Your task to perform on an android device: delete the emails in spam in the gmail app Image 0: 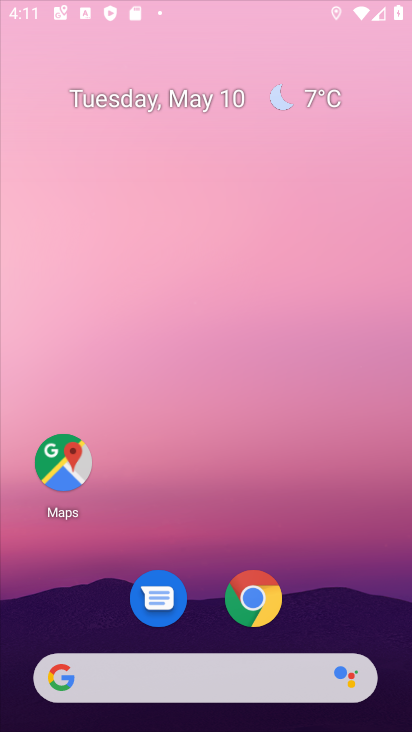
Step 0: click (292, 117)
Your task to perform on an android device: delete the emails in spam in the gmail app Image 1: 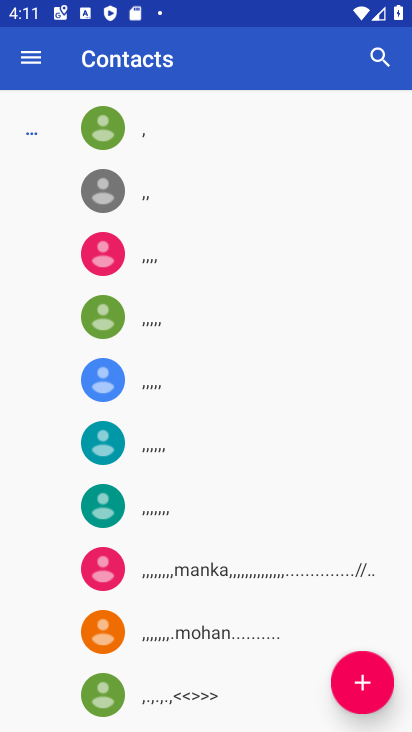
Step 1: press home button
Your task to perform on an android device: delete the emails in spam in the gmail app Image 2: 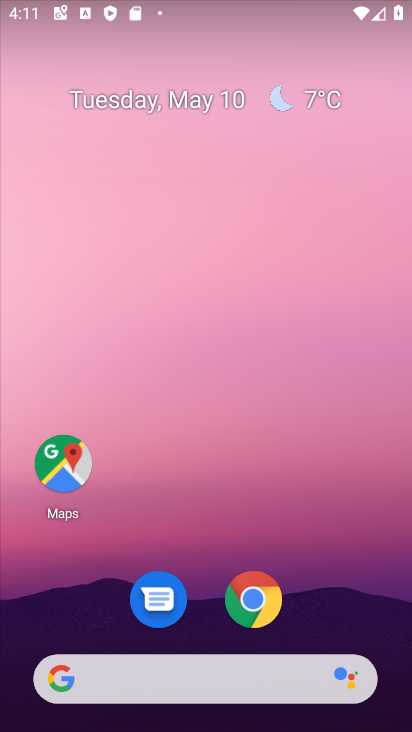
Step 2: drag from (198, 657) to (214, 308)
Your task to perform on an android device: delete the emails in spam in the gmail app Image 3: 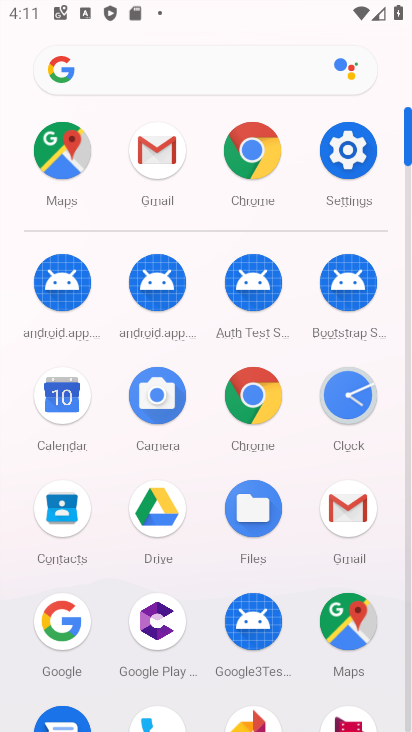
Step 3: click (340, 503)
Your task to perform on an android device: delete the emails in spam in the gmail app Image 4: 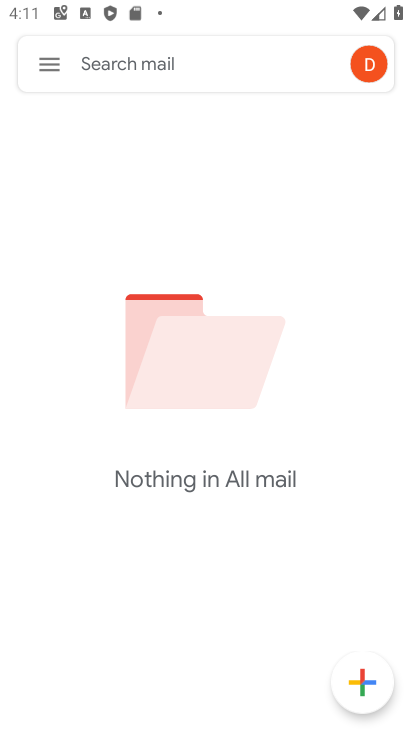
Step 4: click (46, 68)
Your task to perform on an android device: delete the emails in spam in the gmail app Image 5: 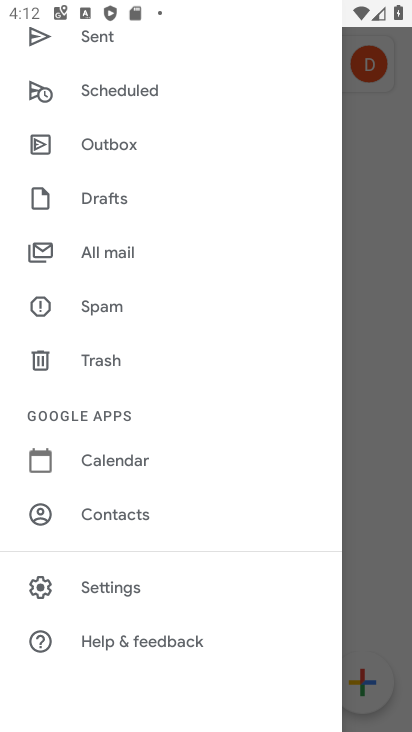
Step 5: click (135, 303)
Your task to perform on an android device: delete the emails in spam in the gmail app Image 6: 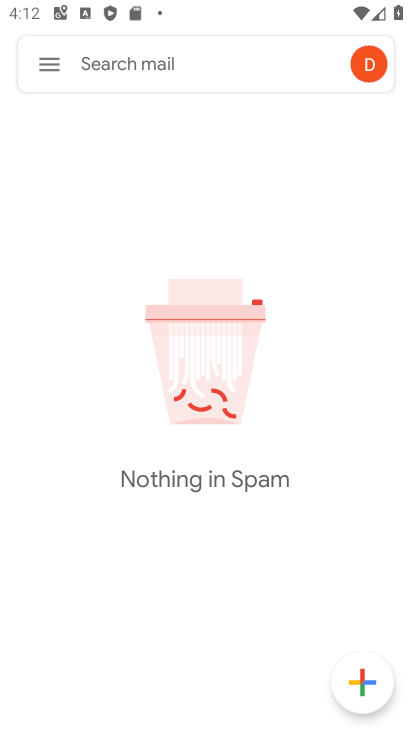
Step 6: task complete